Your task to perform on an android device: Go to Wikipedia Image 0: 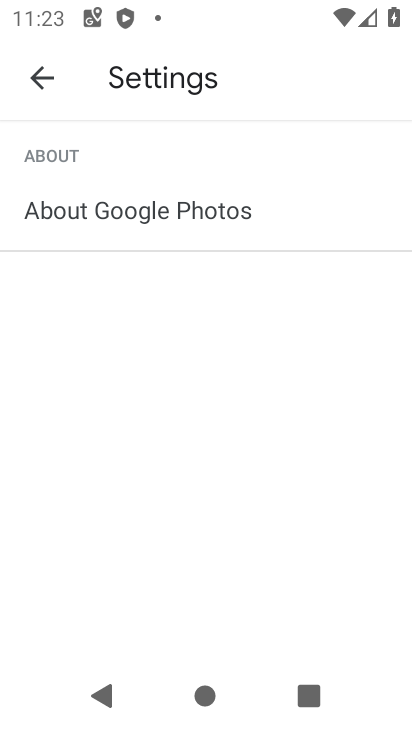
Step 0: press home button
Your task to perform on an android device: Go to Wikipedia Image 1: 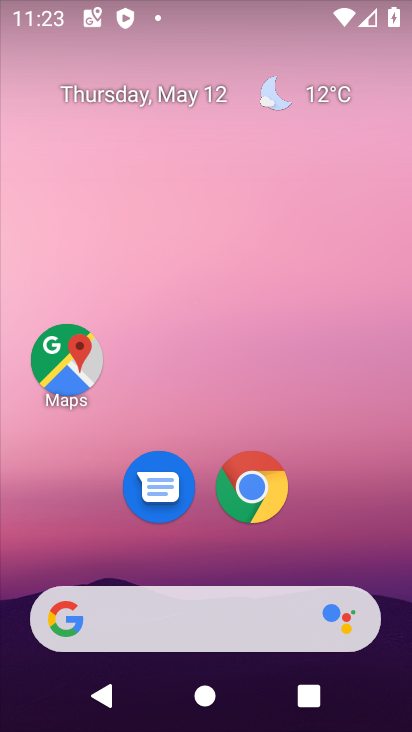
Step 1: click (254, 490)
Your task to perform on an android device: Go to Wikipedia Image 2: 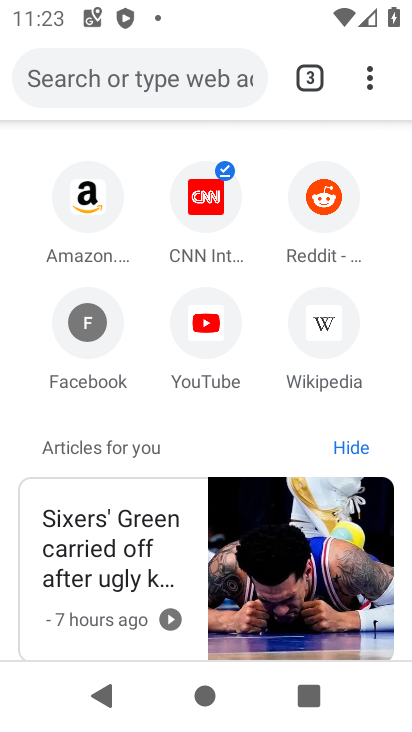
Step 2: click (125, 79)
Your task to perform on an android device: Go to Wikipedia Image 3: 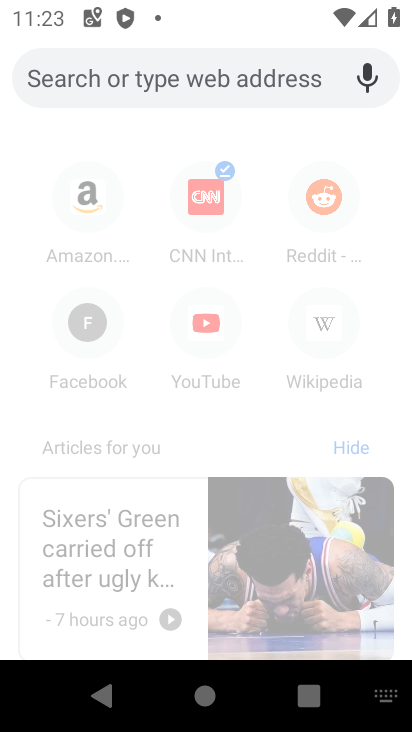
Step 3: click (106, 78)
Your task to perform on an android device: Go to Wikipedia Image 4: 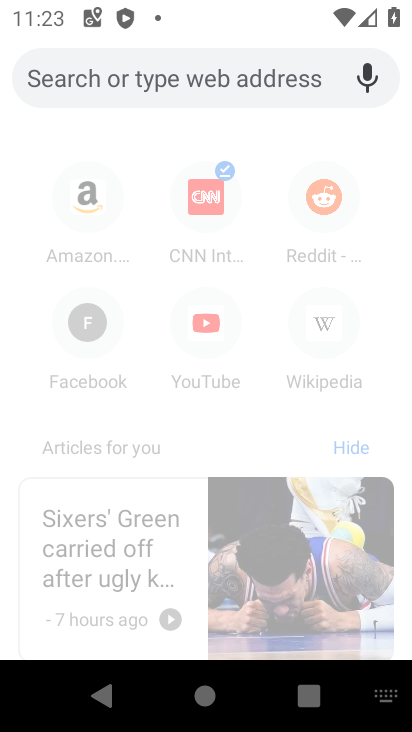
Step 4: type "wikipedia"
Your task to perform on an android device: Go to Wikipedia Image 5: 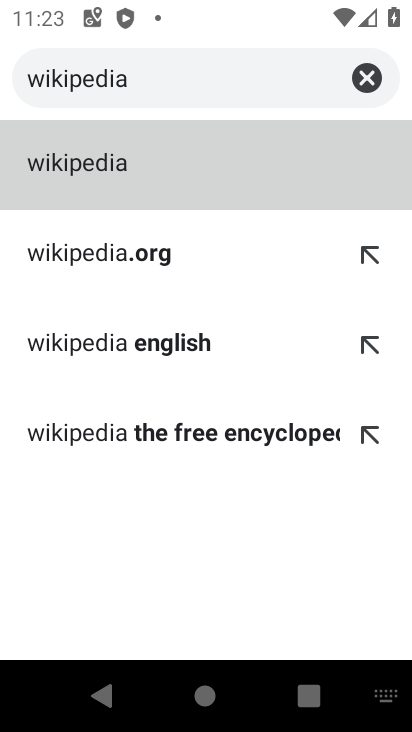
Step 5: click (73, 164)
Your task to perform on an android device: Go to Wikipedia Image 6: 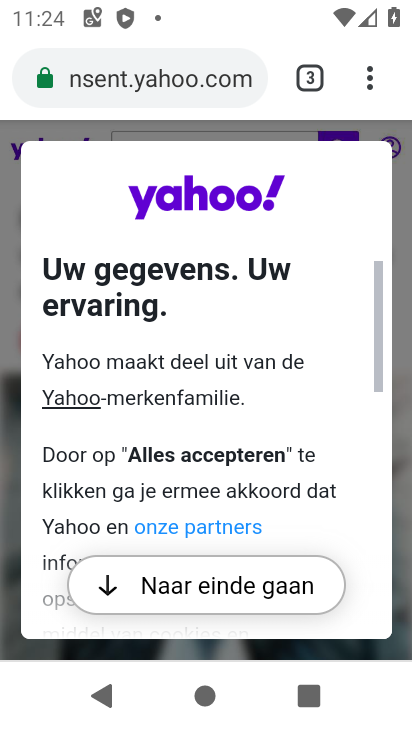
Step 6: click (84, 83)
Your task to perform on an android device: Go to Wikipedia Image 7: 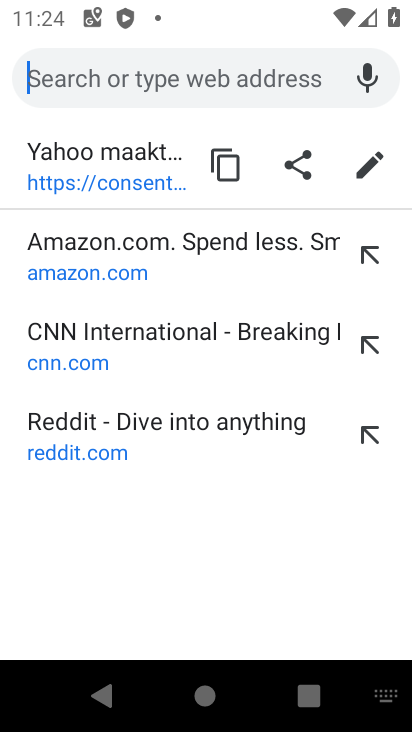
Step 7: type "wikipedia"
Your task to perform on an android device: Go to Wikipedia Image 8: 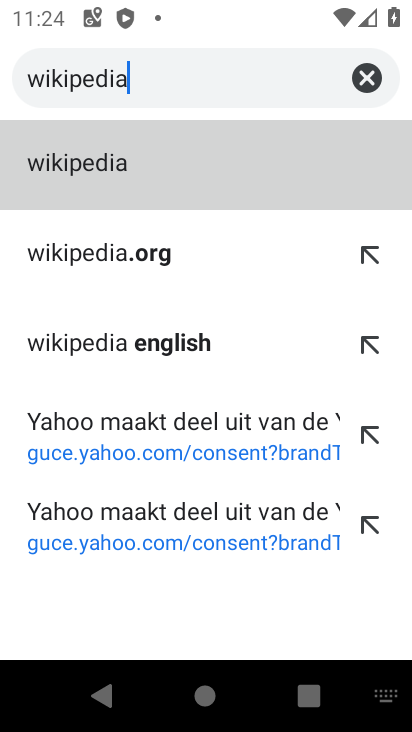
Step 8: click (80, 255)
Your task to perform on an android device: Go to Wikipedia Image 9: 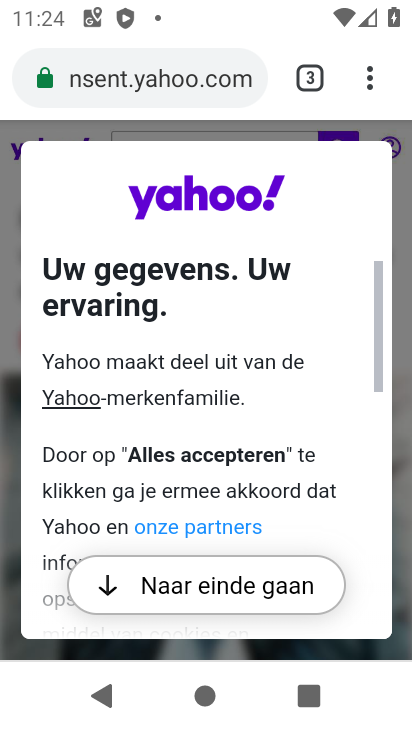
Step 9: click (119, 74)
Your task to perform on an android device: Go to Wikipedia Image 10: 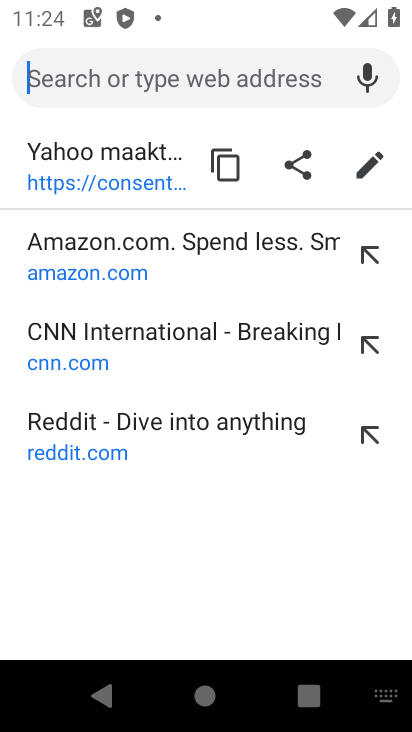
Step 10: type "wikipedia"
Your task to perform on an android device: Go to Wikipedia Image 11: 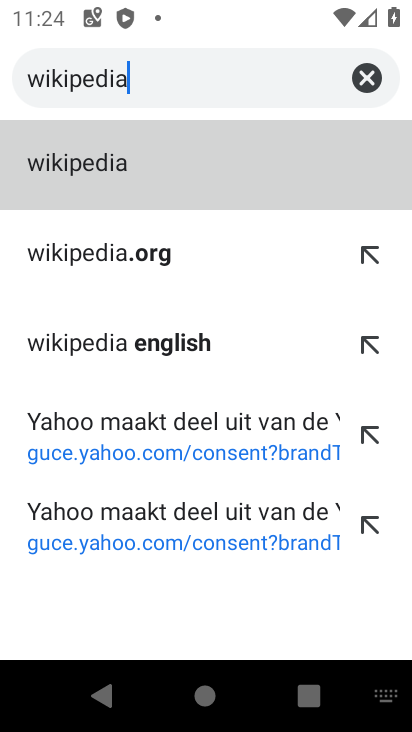
Step 11: click (51, 162)
Your task to perform on an android device: Go to Wikipedia Image 12: 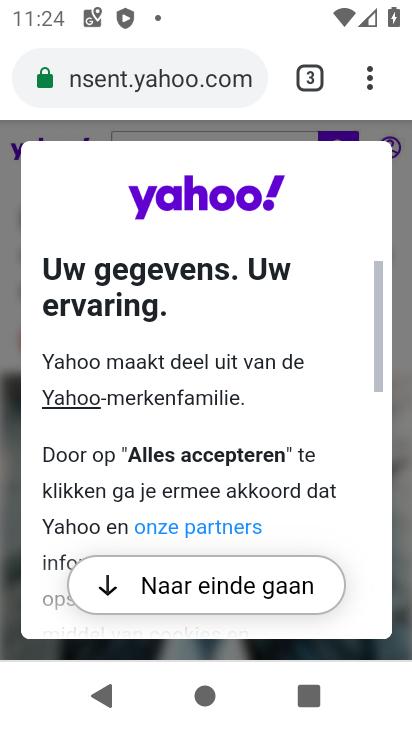
Step 12: task complete